Your task to perform on an android device: Is it going to rain this weekend? Image 0: 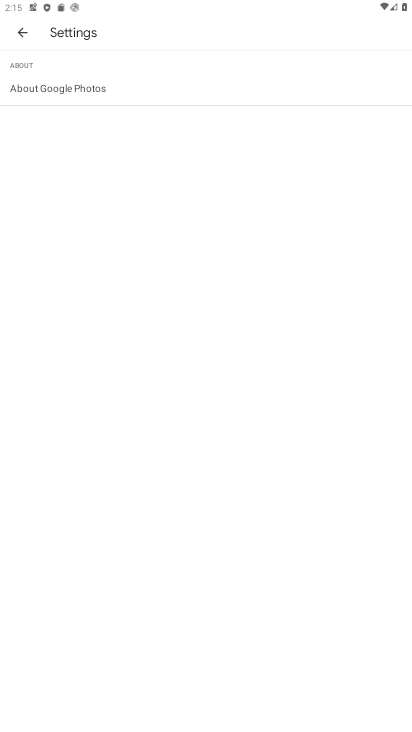
Step 0: press home button
Your task to perform on an android device: Is it going to rain this weekend? Image 1: 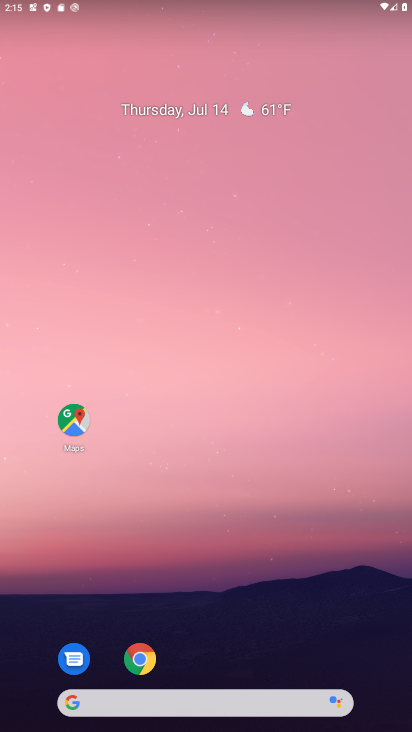
Step 1: drag from (267, 646) to (181, 185)
Your task to perform on an android device: Is it going to rain this weekend? Image 2: 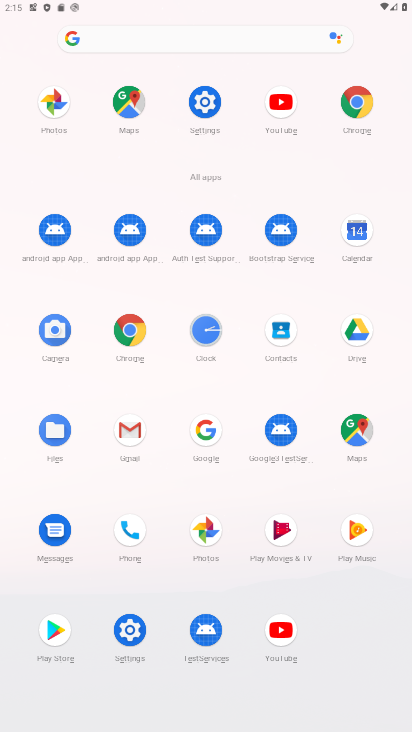
Step 2: click (357, 107)
Your task to perform on an android device: Is it going to rain this weekend? Image 3: 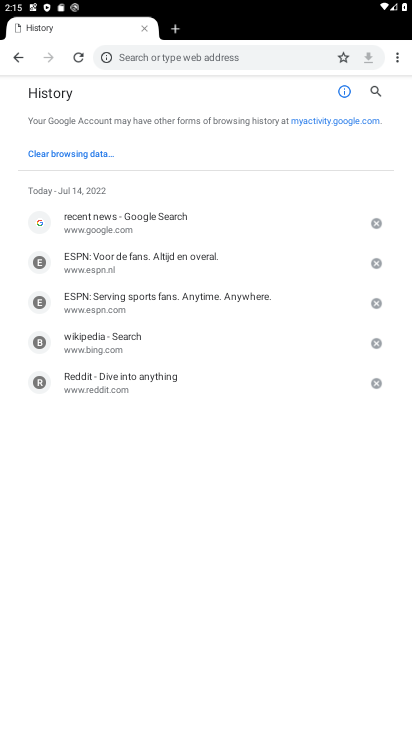
Step 3: click (248, 60)
Your task to perform on an android device: Is it going to rain this weekend? Image 4: 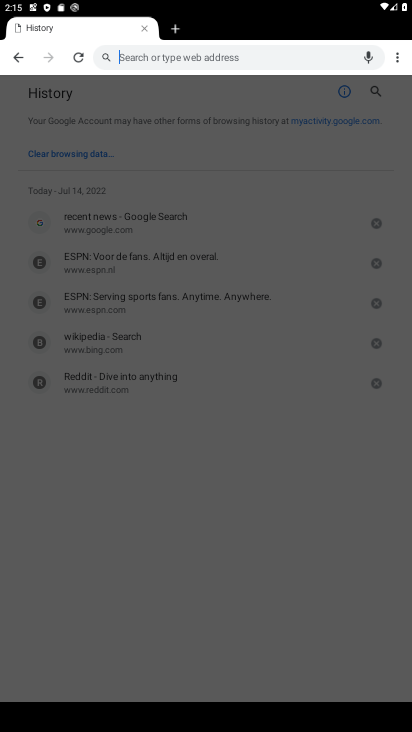
Step 4: type "Is it going to rain this weekend?"
Your task to perform on an android device: Is it going to rain this weekend? Image 5: 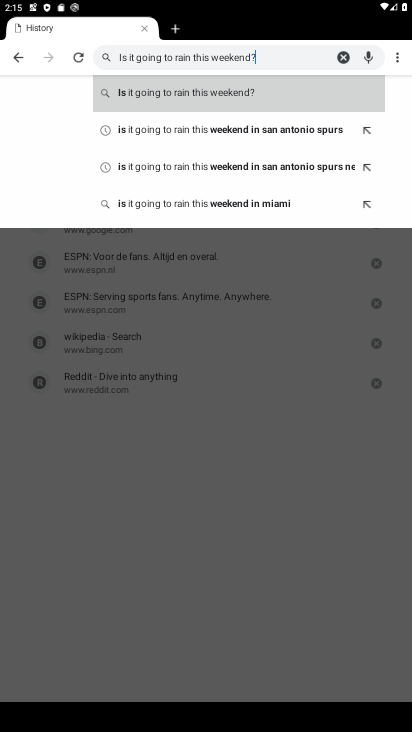
Step 5: click (209, 83)
Your task to perform on an android device: Is it going to rain this weekend? Image 6: 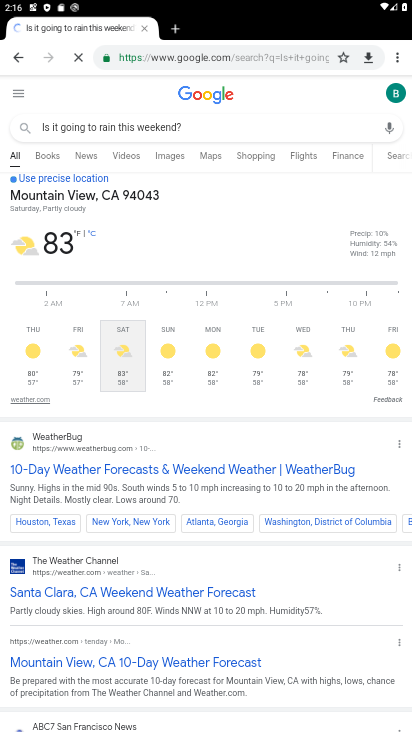
Step 6: task complete